Your task to perform on an android device: turn off smart reply in the gmail app Image 0: 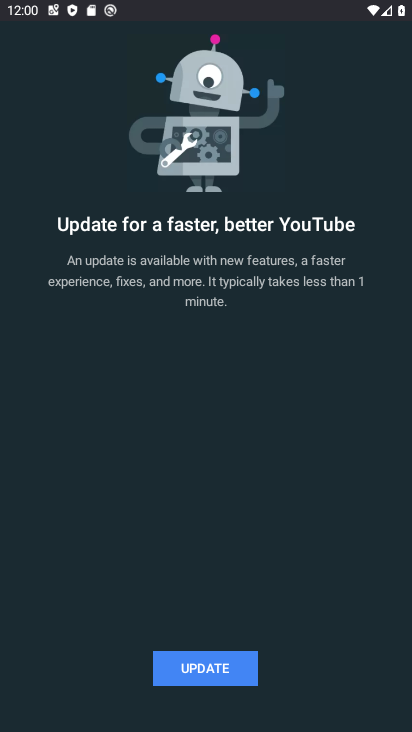
Step 0: press home button
Your task to perform on an android device: turn off smart reply in the gmail app Image 1: 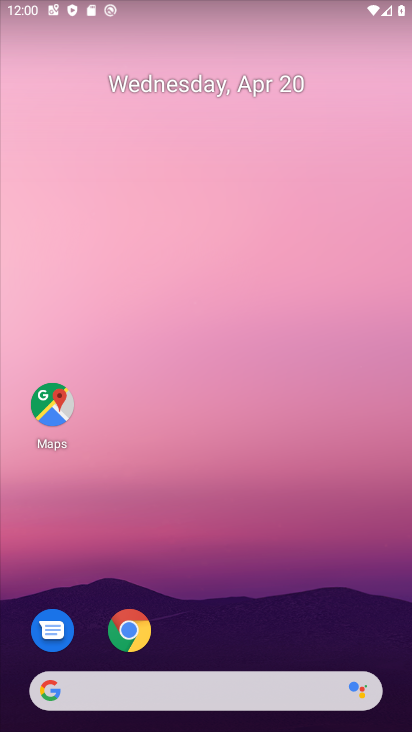
Step 1: drag from (191, 650) to (267, 282)
Your task to perform on an android device: turn off smart reply in the gmail app Image 2: 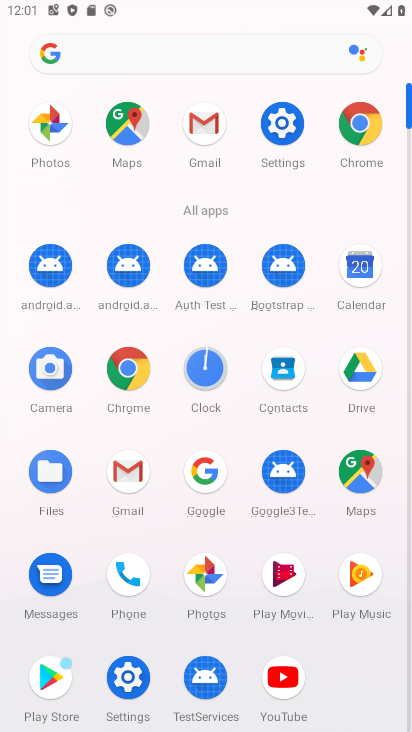
Step 2: click (201, 134)
Your task to perform on an android device: turn off smart reply in the gmail app Image 3: 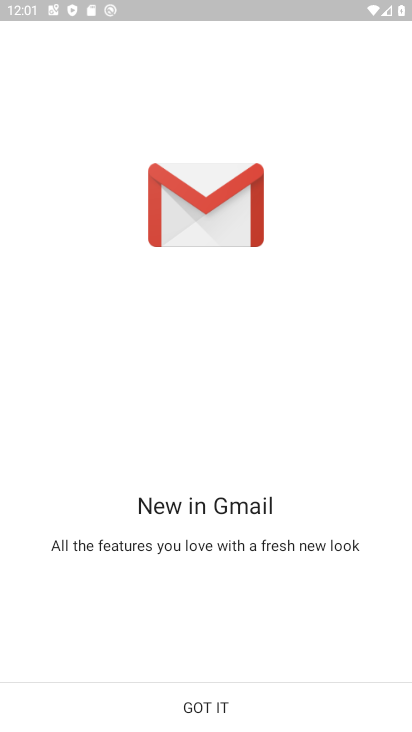
Step 3: click (193, 710)
Your task to perform on an android device: turn off smart reply in the gmail app Image 4: 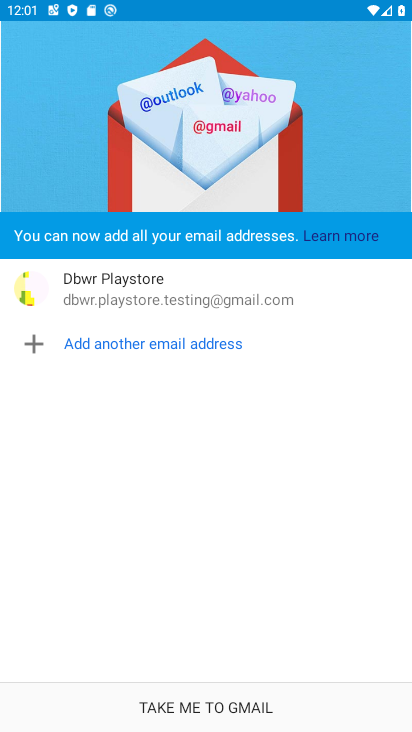
Step 4: click (193, 710)
Your task to perform on an android device: turn off smart reply in the gmail app Image 5: 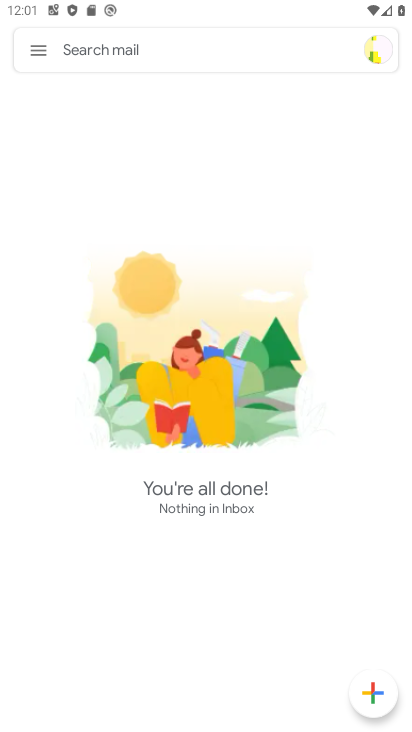
Step 5: click (39, 55)
Your task to perform on an android device: turn off smart reply in the gmail app Image 6: 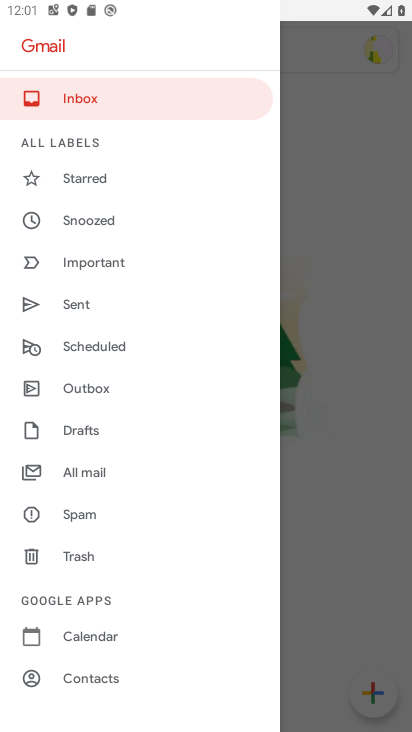
Step 6: drag from (142, 622) to (222, 391)
Your task to perform on an android device: turn off smart reply in the gmail app Image 7: 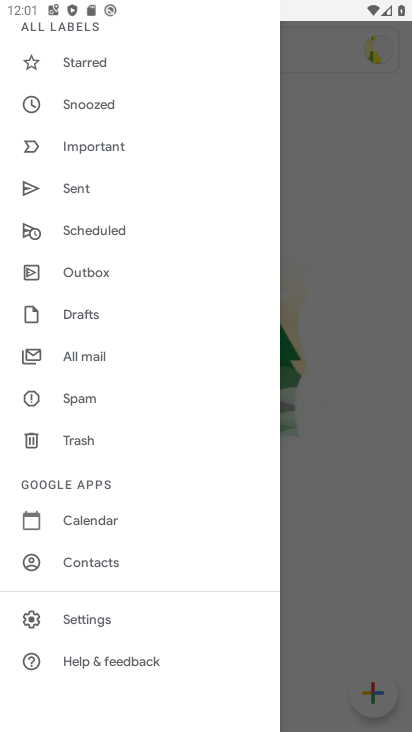
Step 7: click (91, 616)
Your task to perform on an android device: turn off smart reply in the gmail app Image 8: 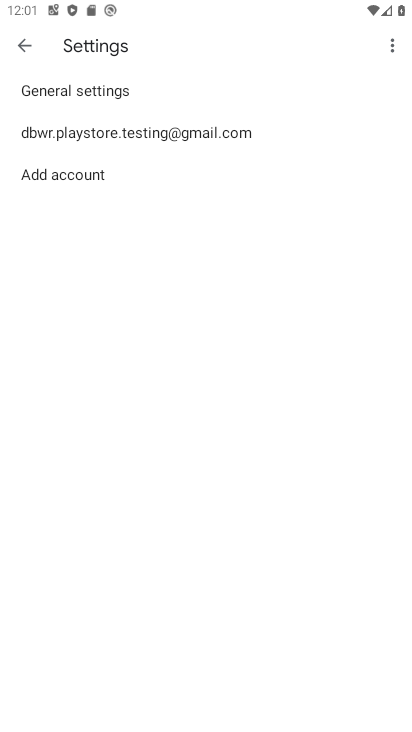
Step 8: click (210, 134)
Your task to perform on an android device: turn off smart reply in the gmail app Image 9: 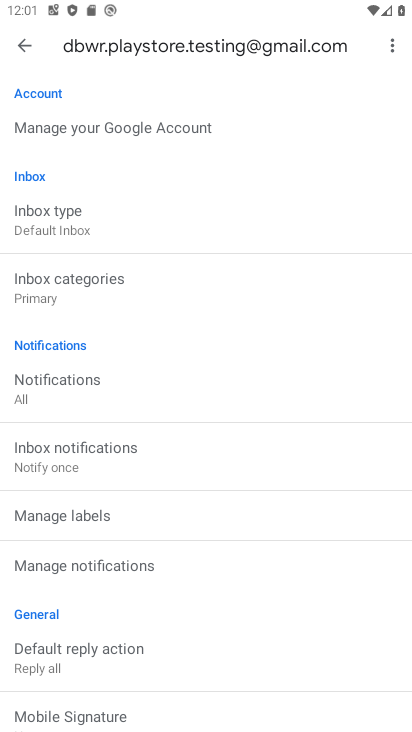
Step 9: drag from (202, 667) to (311, 152)
Your task to perform on an android device: turn off smart reply in the gmail app Image 10: 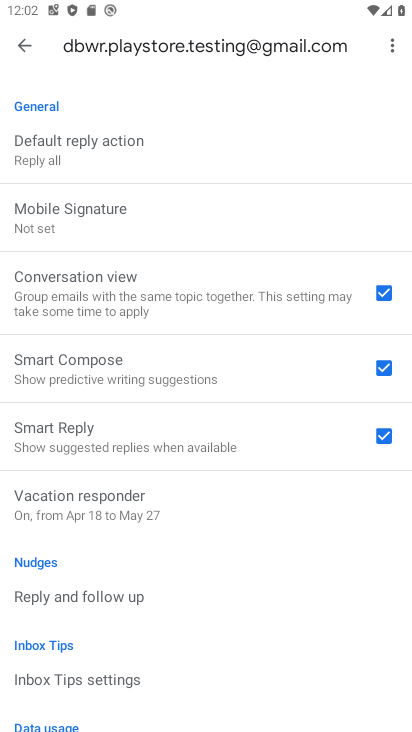
Step 10: click (391, 439)
Your task to perform on an android device: turn off smart reply in the gmail app Image 11: 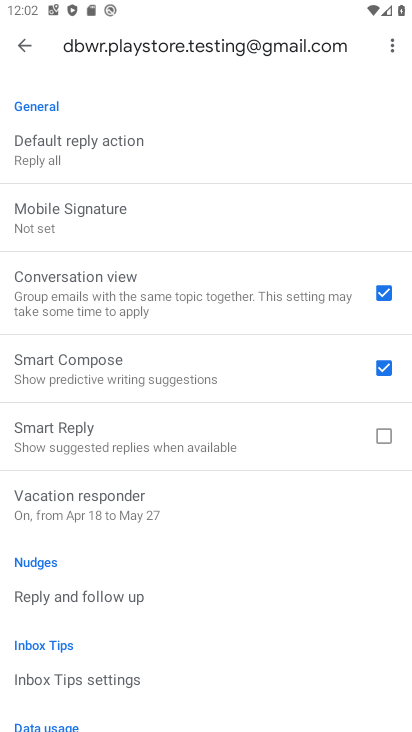
Step 11: task complete